Your task to perform on an android device: Open internet settings Image 0: 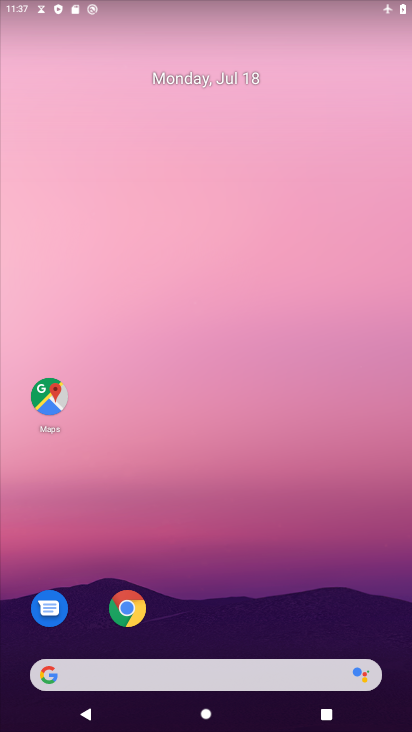
Step 0: drag from (303, 610) to (349, 44)
Your task to perform on an android device: Open internet settings Image 1: 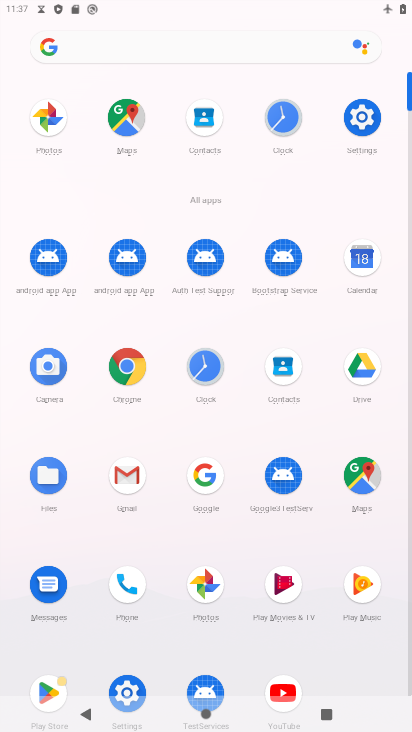
Step 1: click (364, 115)
Your task to perform on an android device: Open internet settings Image 2: 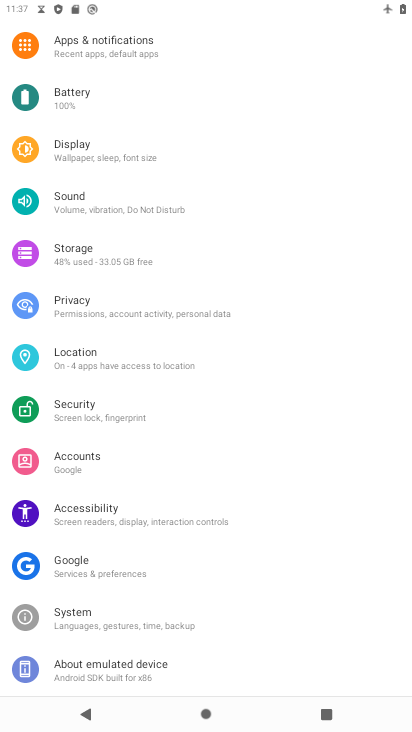
Step 2: drag from (223, 123) to (138, 729)
Your task to perform on an android device: Open internet settings Image 3: 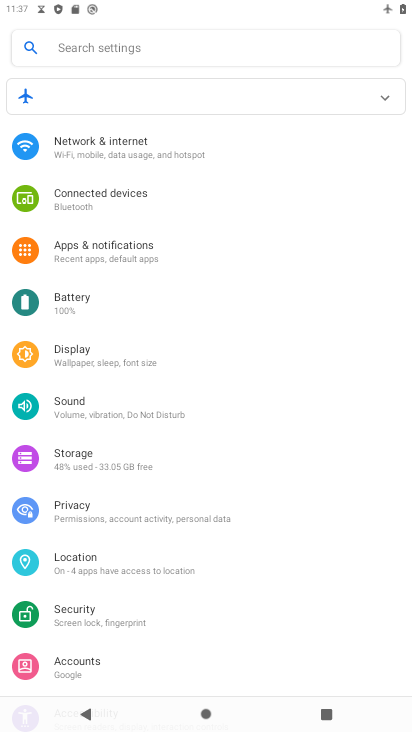
Step 3: click (247, 471)
Your task to perform on an android device: Open internet settings Image 4: 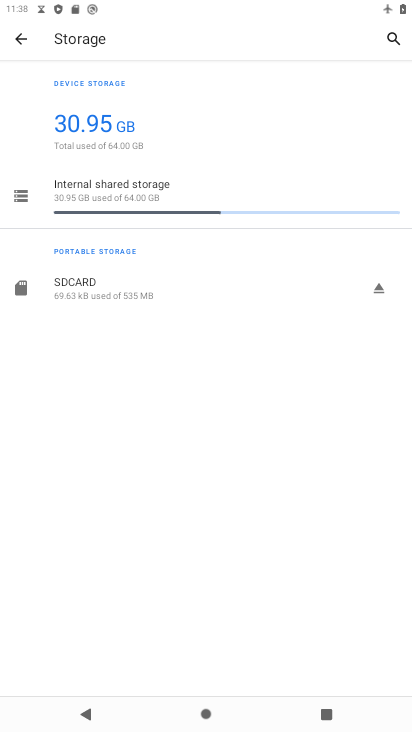
Step 4: press home button
Your task to perform on an android device: Open internet settings Image 5: 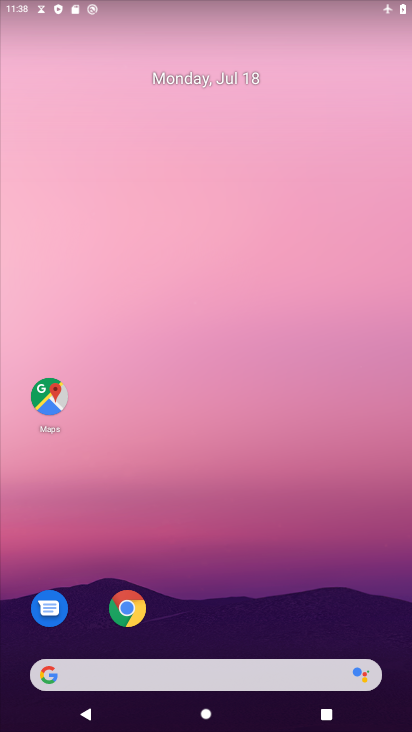
Step 5: drag from (236, 719) to (283, 109)
Your task to perform on an android device: Open internet settings Image 6: 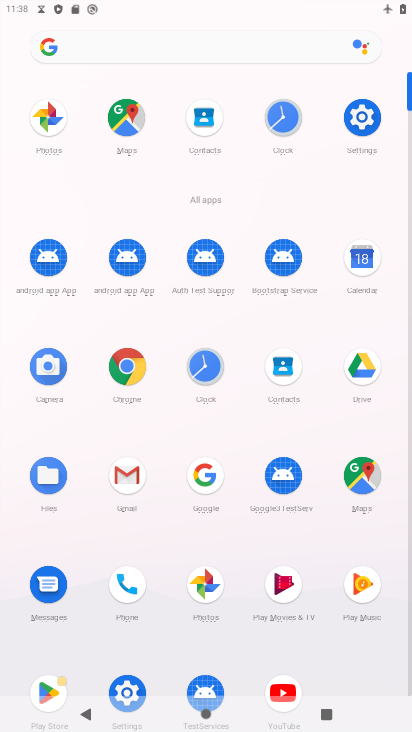
Step 6: click (355, 117)
Your task to perform on an android device: Open internet settings Image 7: 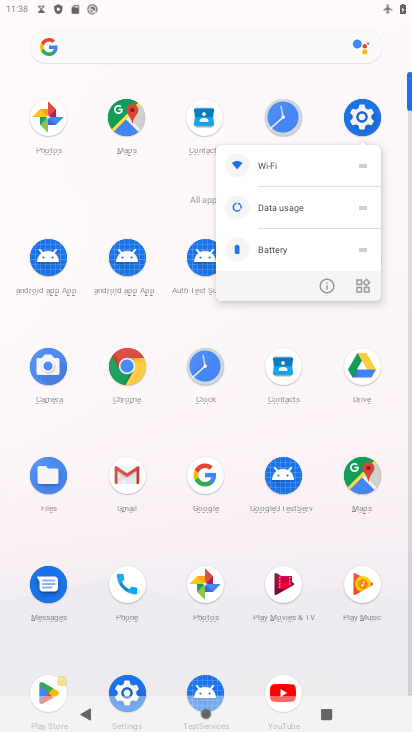
Step 7: click (362, 109)
Your task to perform on an android device: Open internet settings Image 8: 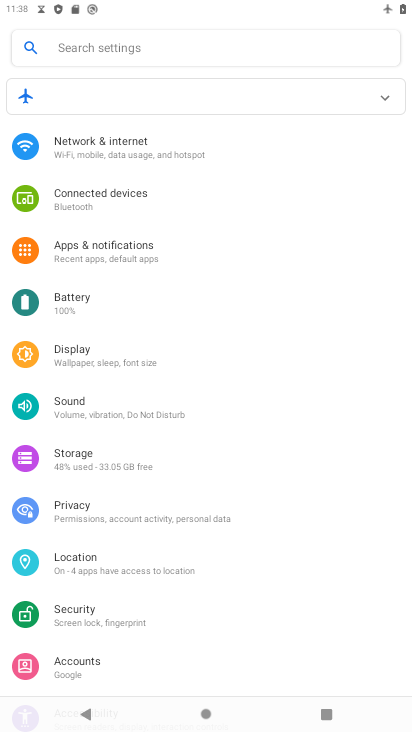
Step 8: click (252, 132)
Your task to perform on an android device: Open internet settings Image 9: 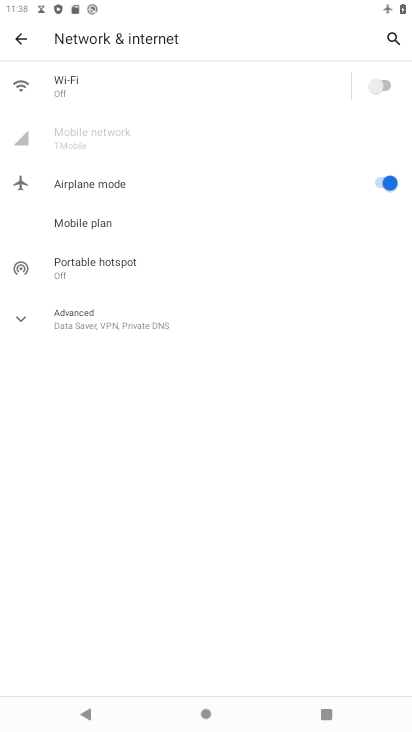
Step 9: task complete